Your task to perform on an android device: Open ESPN.com Image 0: 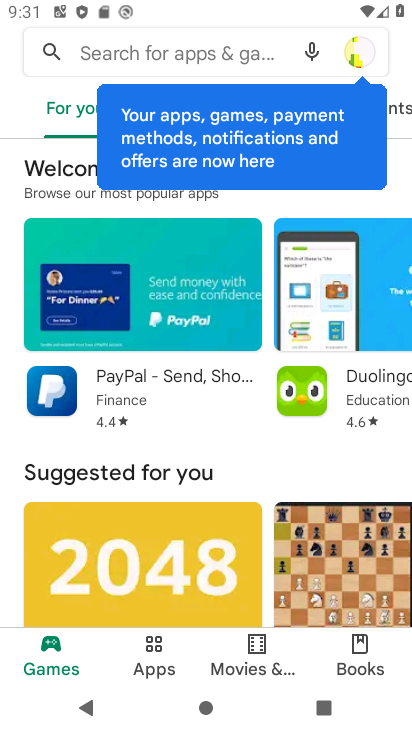
Step 0: press home button
Your task to perform on an android device: Open ESPN.com Image 1: 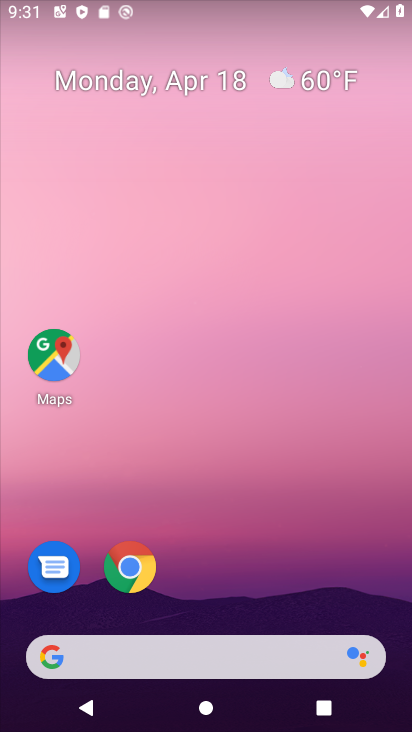
Step 1: click (218, 669)
Your task to perform on an android device: Open ESPN.com Image 2: 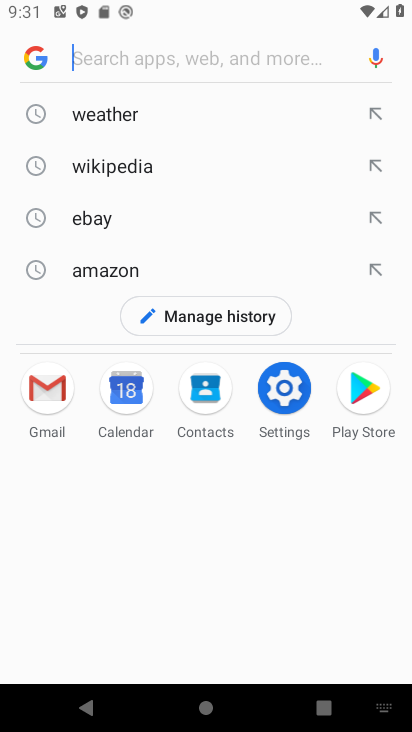
Step 2: type "ESPN.com"
Your task to perform on an android device: Open ESPN.com Image 3: 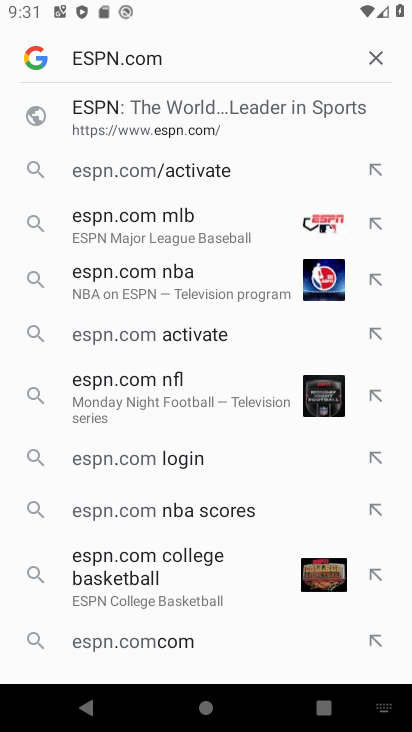
Step 3: click (258, 112)
Your task to perform on an android device: Open ESPN.com Image 4: 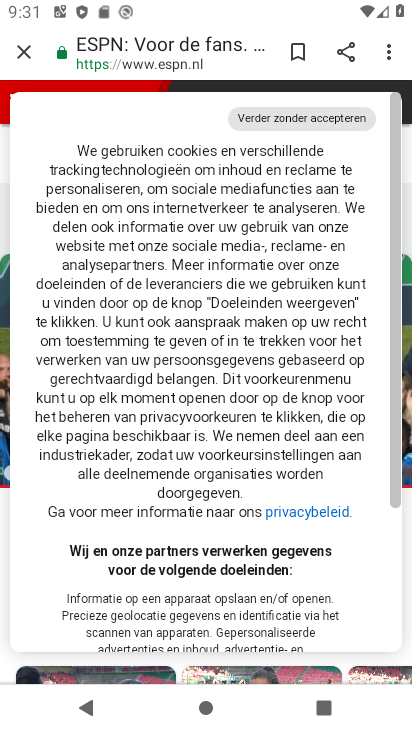
Step 4: task complete